Your task to perform on an android device: turn off smart reply in the gmail app Image 0: 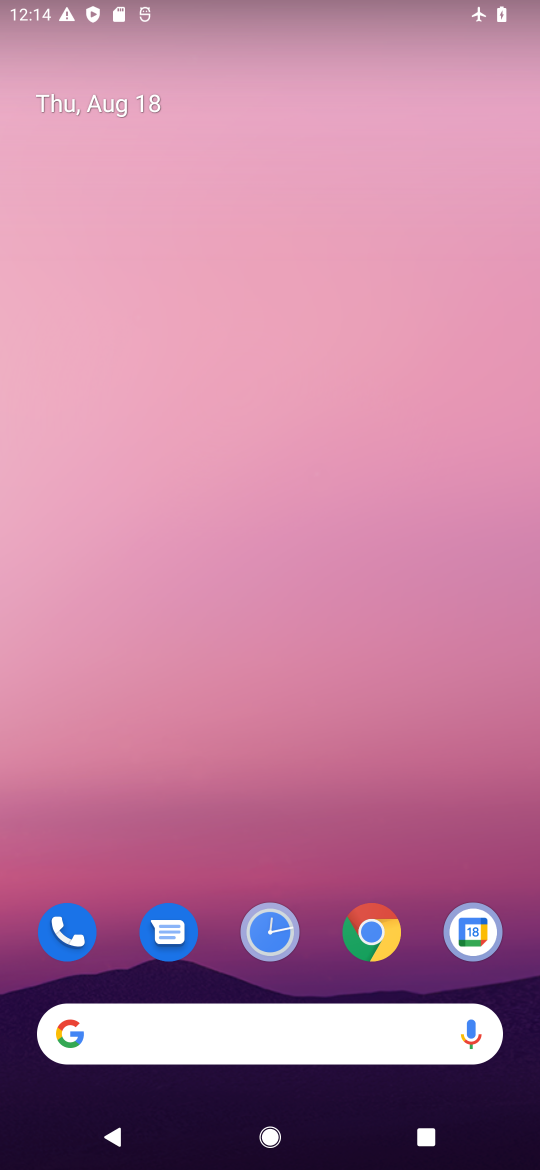
Step 0: drag from (337, 862) to (179, 149)
Your task to perform on an android device: turn off smart reply in the gmail app Image 1: 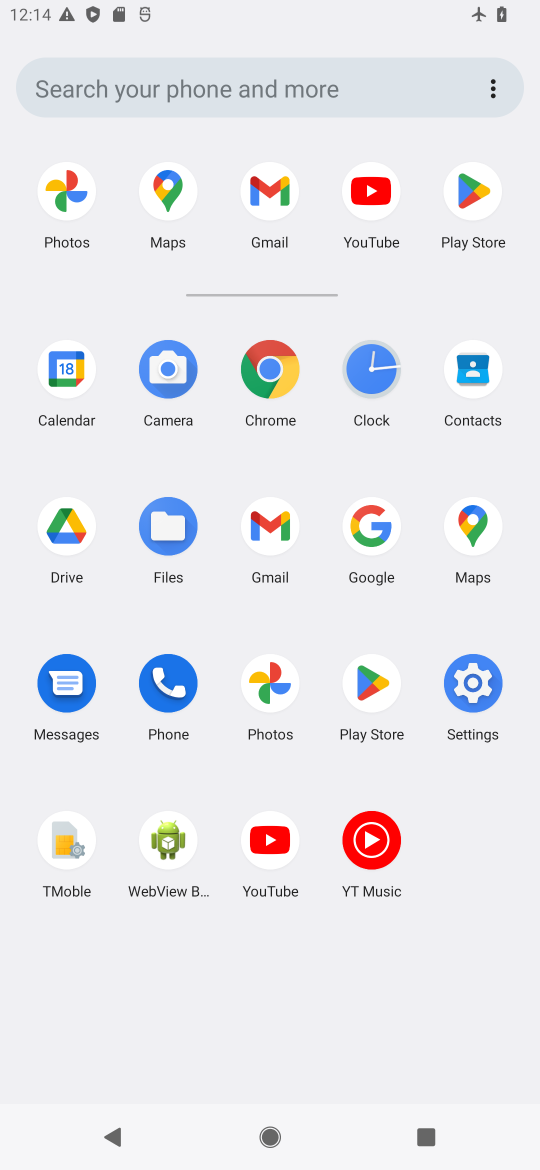
Step 1: click (269, 185)
Your task to perform on an android device: turn off smart reply in the gmail app Image 2: 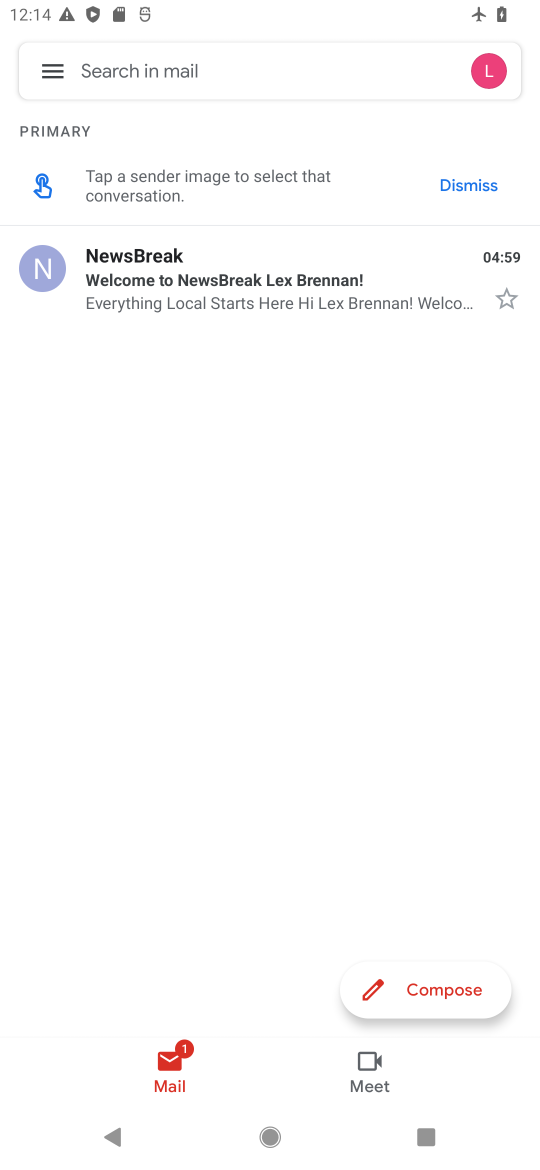
Step 2: click (60, 63)
Your task to perform on an android device: turn off smart reply in the gmail app Image 3: 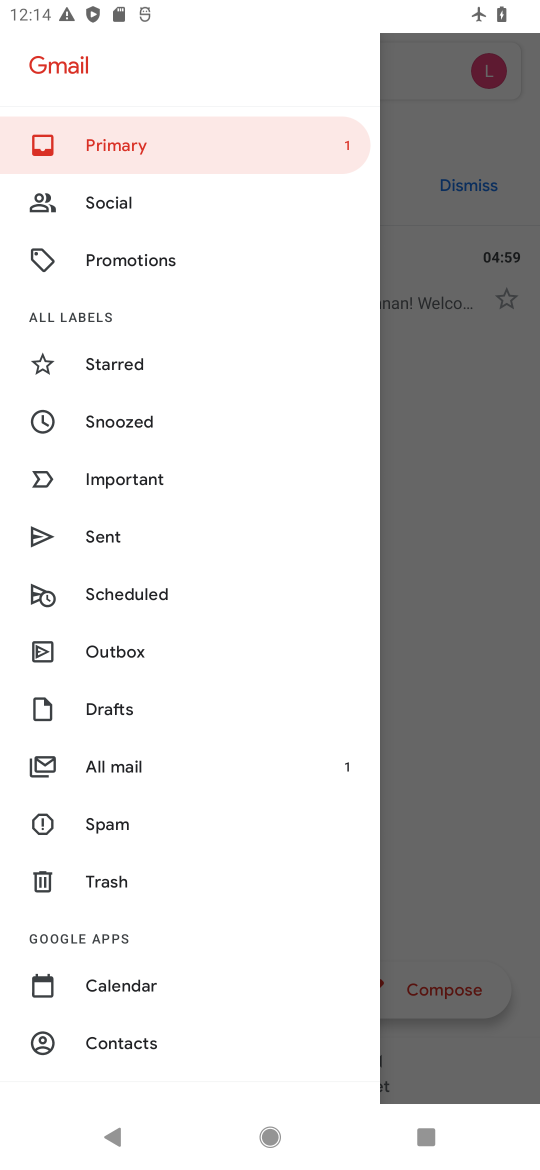
Step 3: drag from (228, 960) to (249, 735)
Your task to perform on an android device: turn off smart reply in the gmail app Image 4: 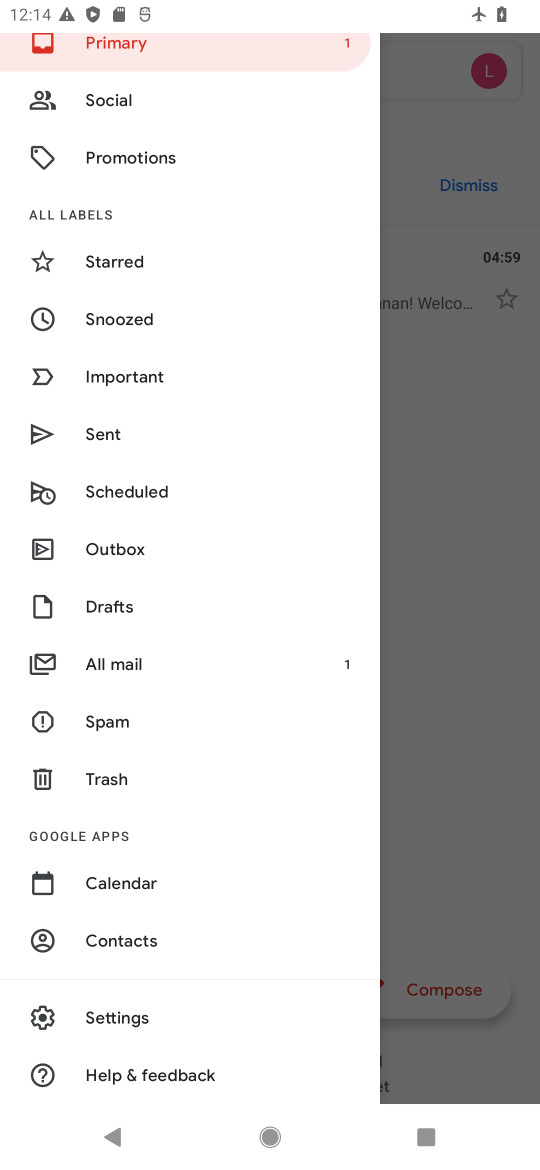
Step 4: click (131, 1009)
Your task to perform on an android device: turn off smart reply in the gmail app Image 5: 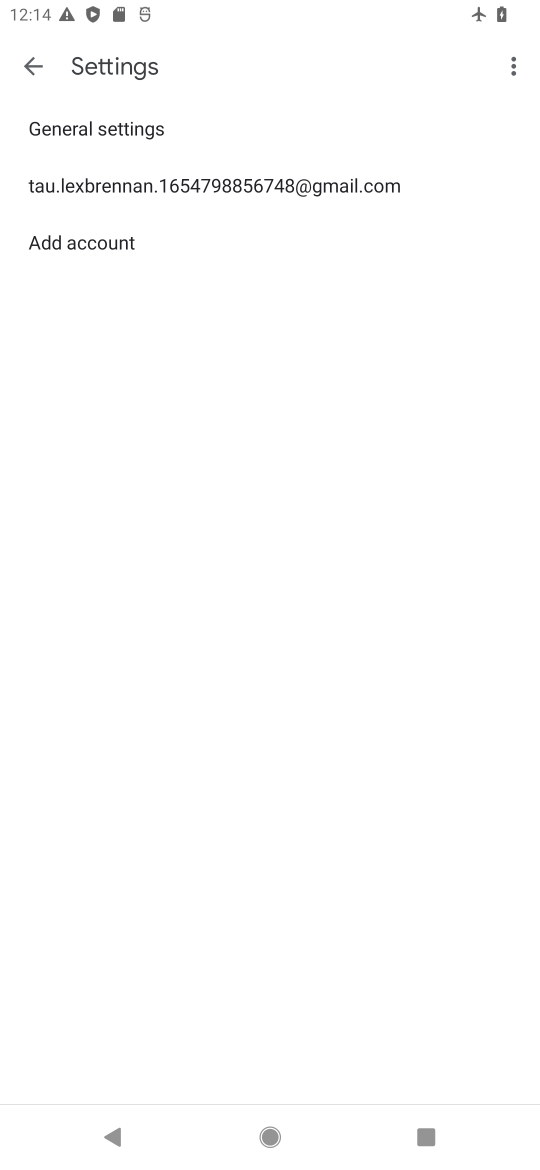
Step 5: click (131, 188)
Your task to perform on an android device: turn off smart reply in the gmail app Image 6: 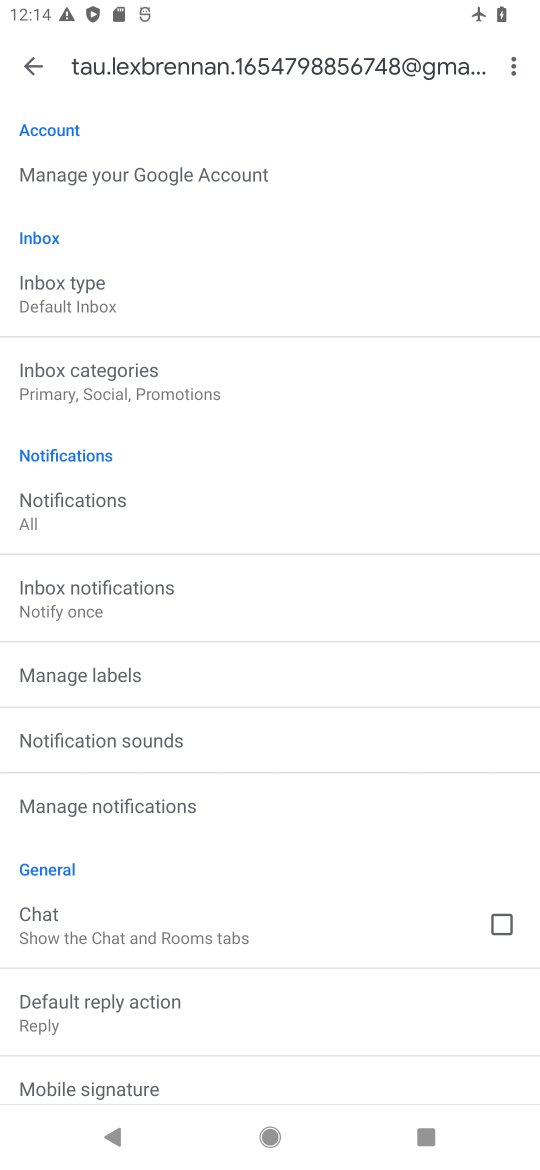
Step 6: drag from (287, 969) to (296, 609)
Your task to perform on an android device: turn off smart reply in the gmail app Image 7: 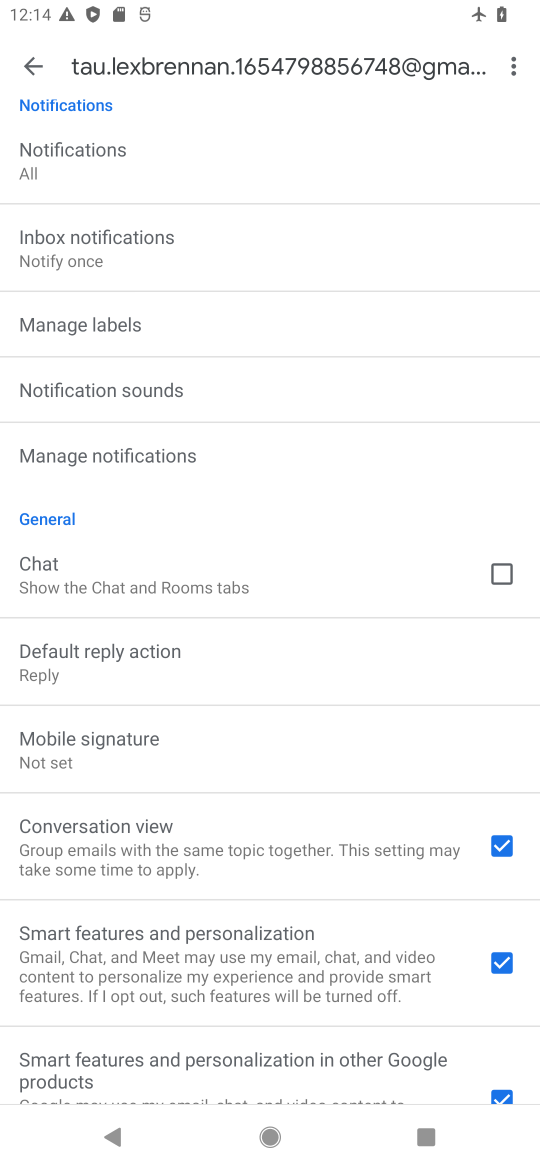
Step 7: drag from (265, 788) to (234, 485)
Your task to perform on an android device: turn off smart reply in the gmail app Image 8: 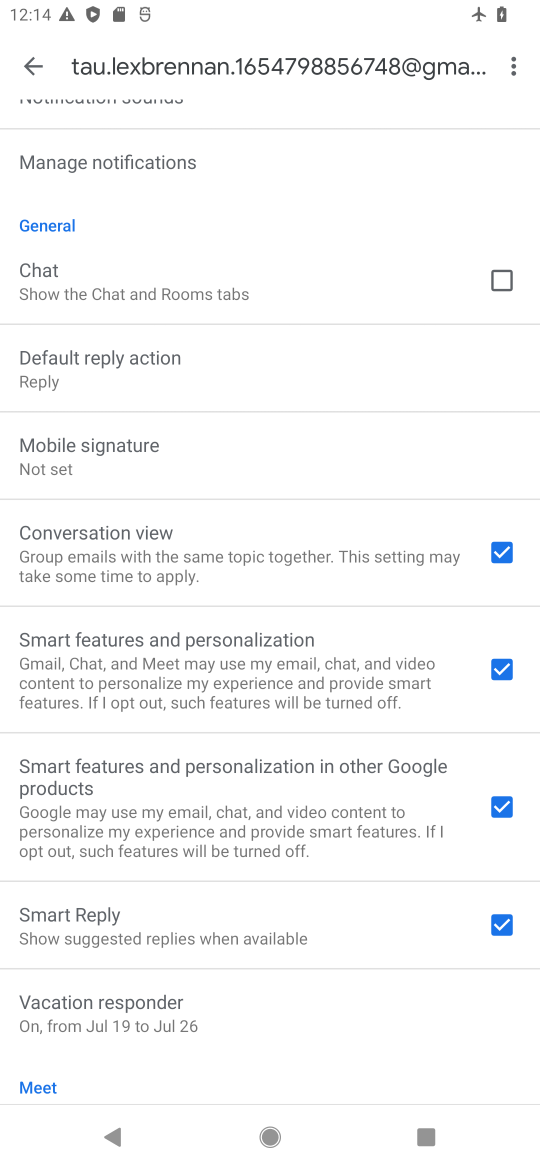
Step 8: click (498, 922)
Your task to perform on an android device: turn off smart reply in the gmail app Image 9: 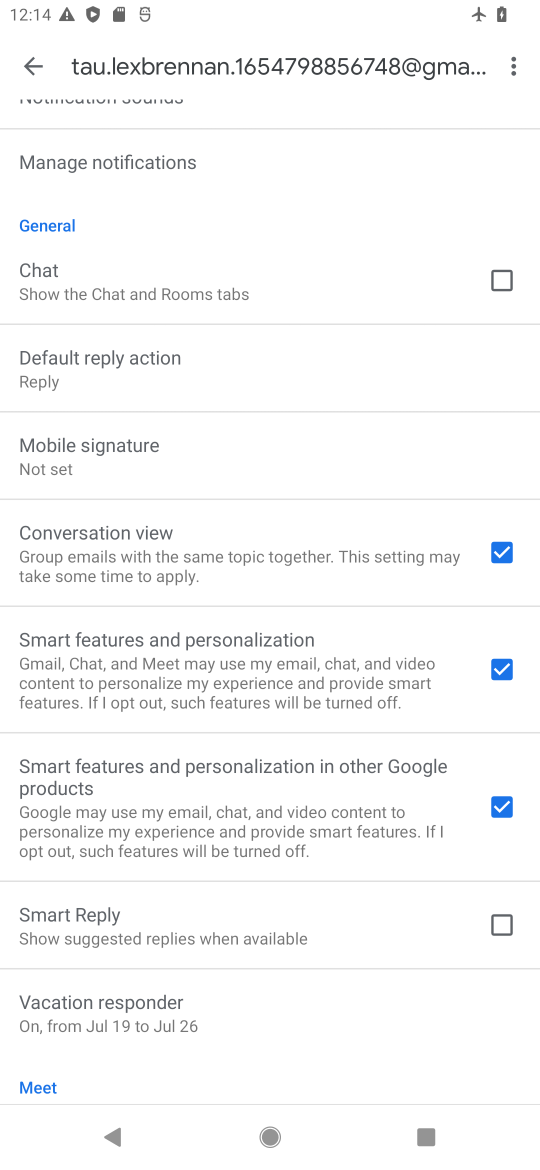
Step 9: task complete